Your task to perform on an android device: turn off smart reply in the gmail app Image 0: 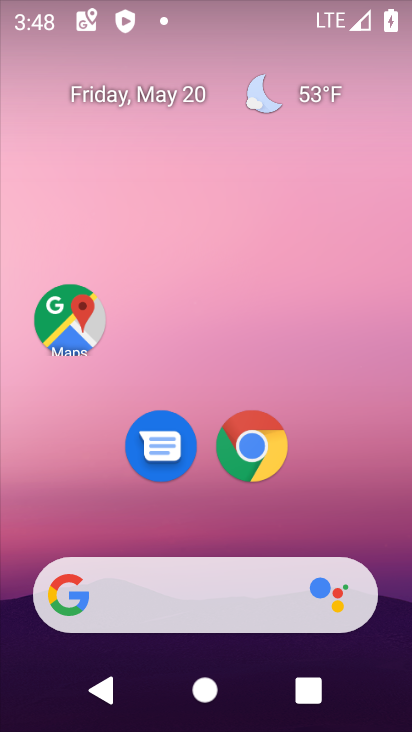
Step 0: drag from (368, 527) to (385, 133)
Your task to perform on an android device: turn off smart reply in the gmail app Image 1: 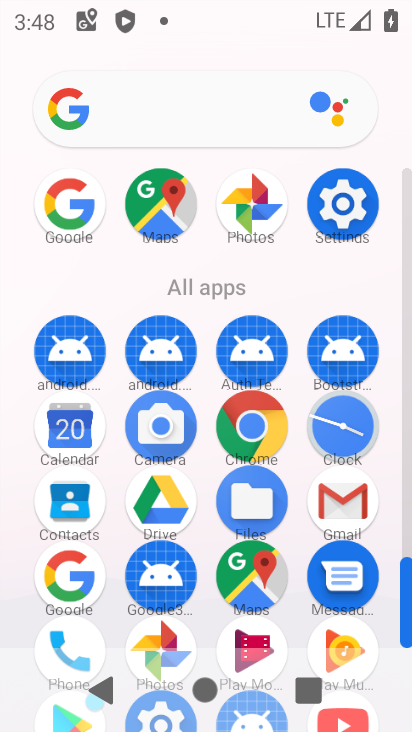
Step 1: click (365, 491)
Your task to perform on an android device: turn off smart reply in the gmail app Image 2: 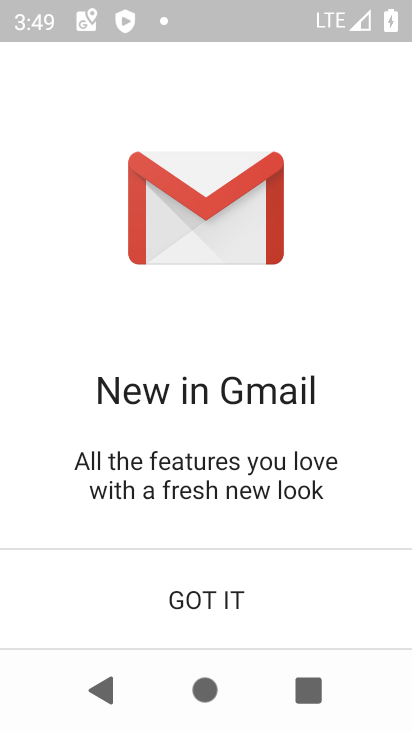
Step 2: click (168, 604)
Your task to perform on an android device: turn off smart reply in the gmail app Image 3: 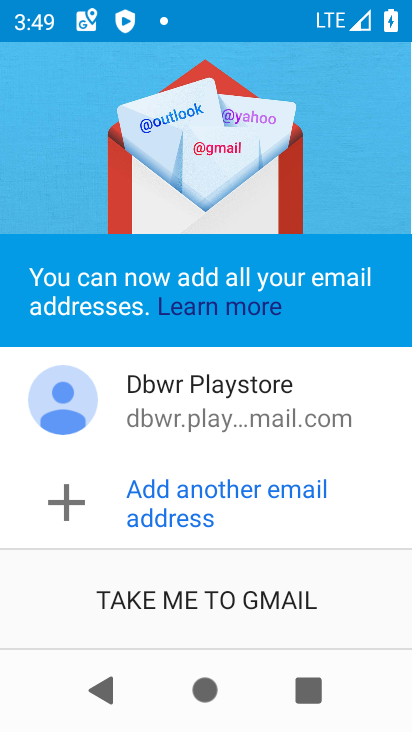
Step 3: click (168, 603)
Your task to perform on an android device: turn off smart reply in the gmail app Image 4: 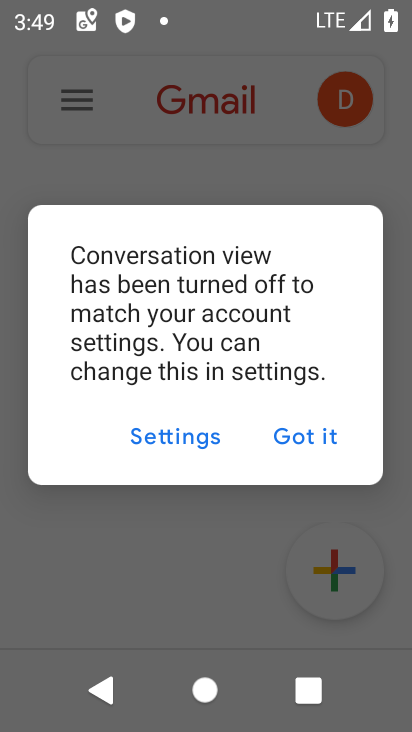
Step 4: click (292, 440)
Your task to perform on an android device: turn off smart reply in the gmail app Image 5: 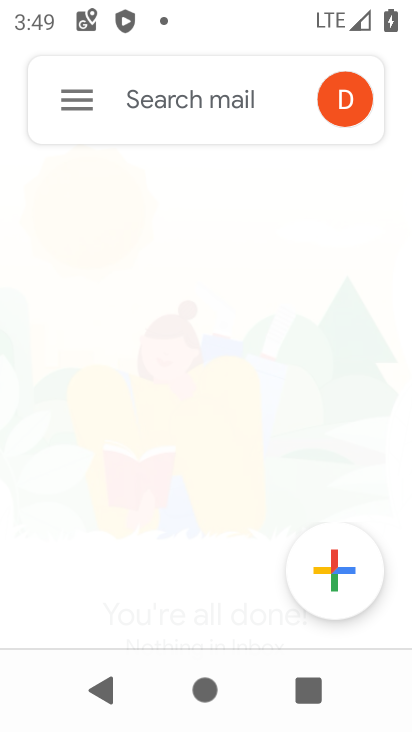
Step 5: click (72, 114)
Your task to perform on an android device: turn off smart reply in the gmail app Image 6: 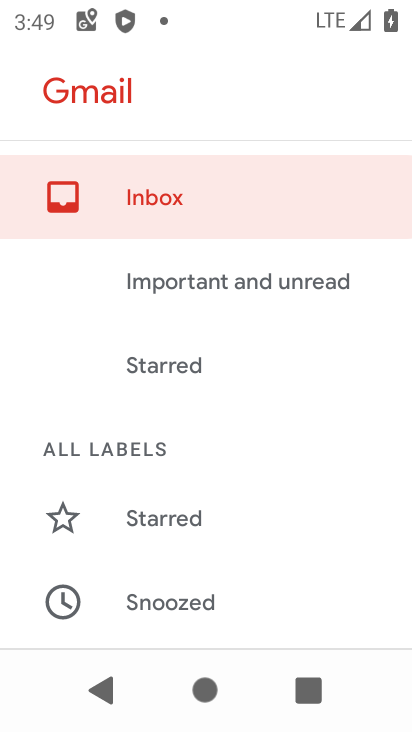
Step 6: drag from (191, 576) to (295, 185)
Your task to perform on an android device: turn off smart reply in the gmail app Image 7: 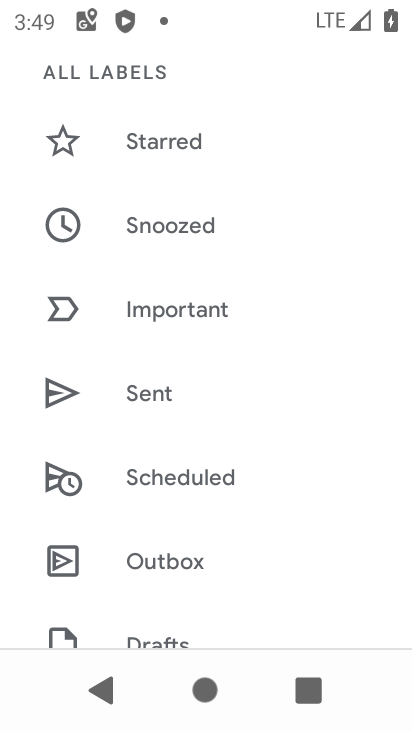
Step 7: drag from (244, 511) to (310, 174)
Your task to perform on an android device: turn off smart reply in the gmail app Image 8: 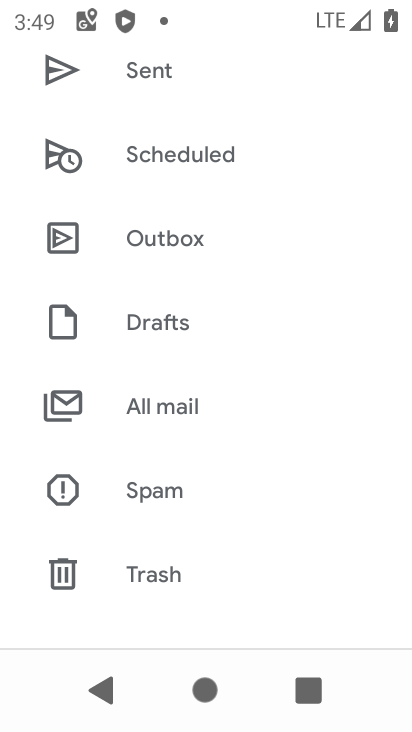
Step 8: drag from (165, 591) to (246, 236)
Your task to perform on an android device: turn off smart reply in the gmail app Image 9: 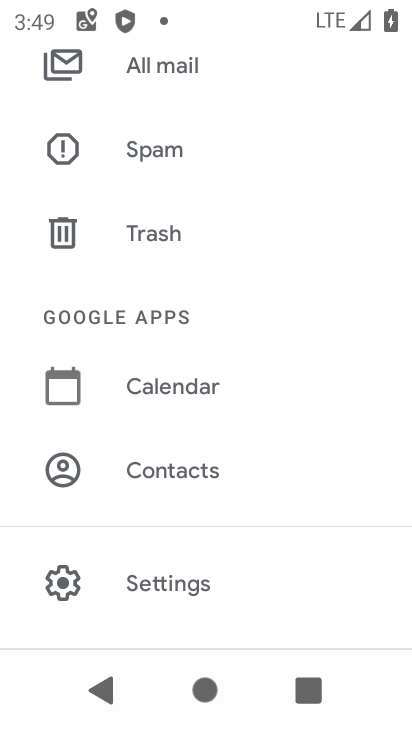
Step 9: click (142, 567)
Your task to perform on an android device: turn off smart reply in the gmail app Image 10: 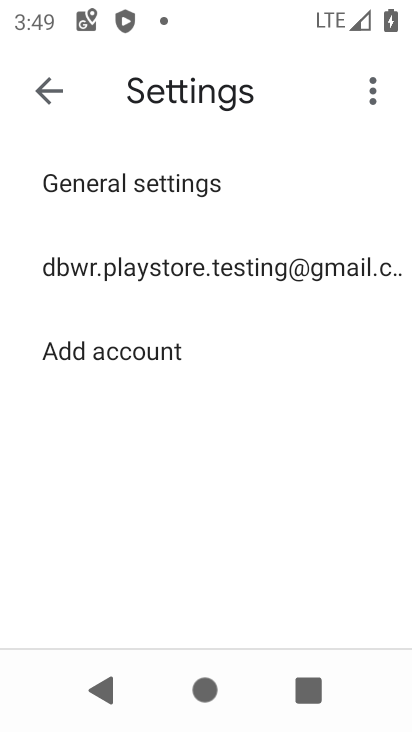
Step 10: click (161, 277)
Your task to perform on an android device: turn off smart reply in the gmail app Image 11: 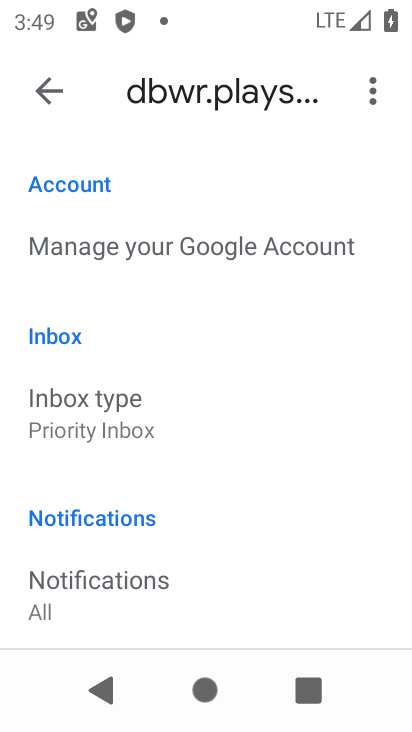
Step 11: drag from (231, 517) to (299, 236)
Your task to perform on an android device: turn off smart reply in the gmail app Image 12: 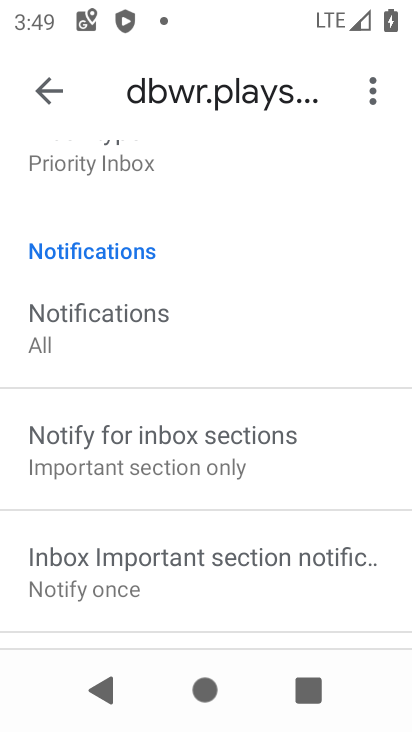
Step 12: drag from (239, 521) to (282, 149)
Your task to perform on an android device: turn off smart reply in the gmail app Image 13: 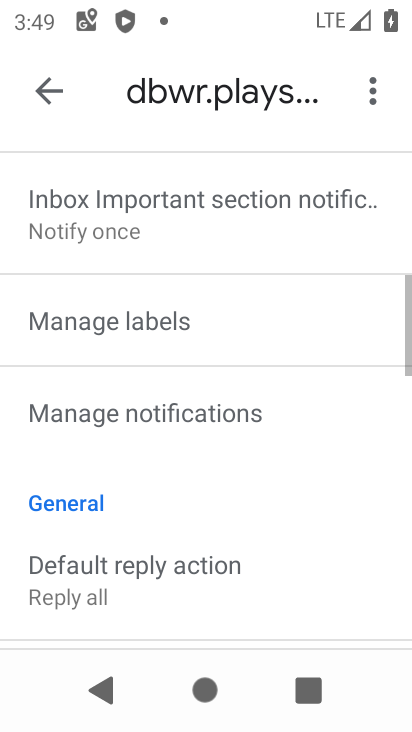
Step 13: drag from (305, 247) to (302, 177)
Your task to perform on an android device: turn off smart reply in the gmail app Image 14: 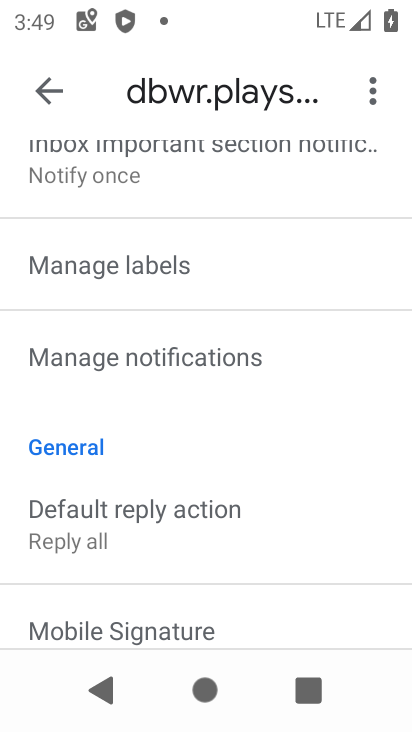
Step 14: drag from (273, 544) to (351, 100)
Your task to perform on an android device: turn off smart reply in the gmail app Image 15: 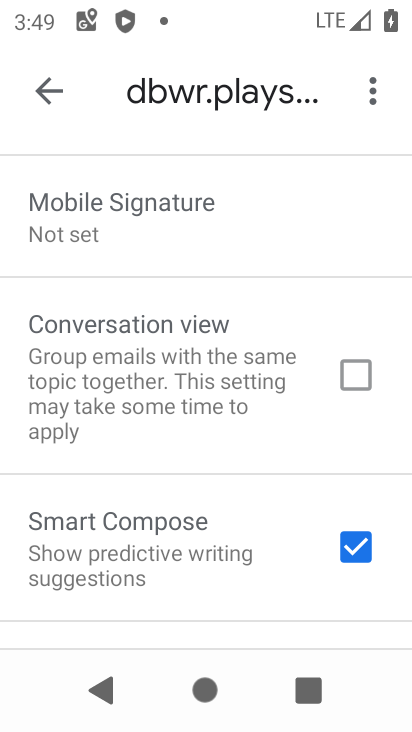
Step 15: drag from (211, 541) to (268, 275)
Your task to perform on an android device: turn off smart reply in the gmail app Image 16: 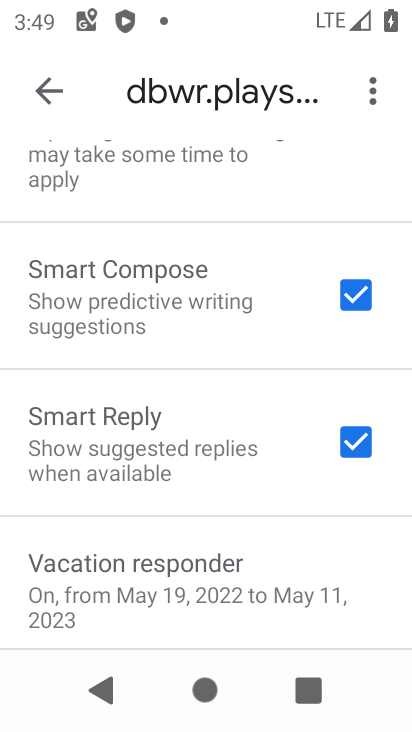
Step 16: click (348, 453)
Your task to perform on an android device: turn off smart reply in the gmail app Image 17: 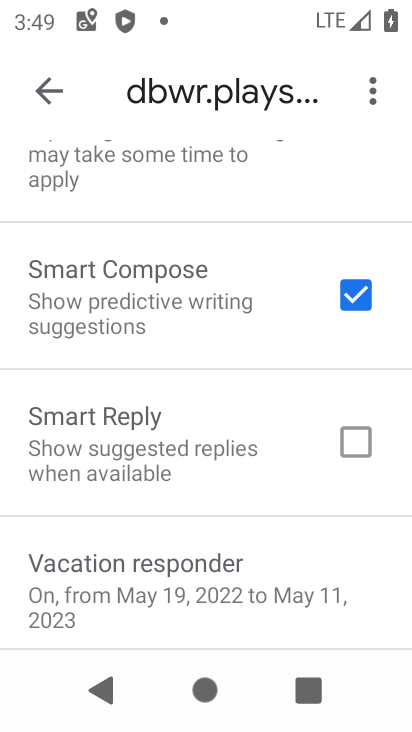
Step 17: task complete